Your task to perform on an android device: open wifi settings Image 0: 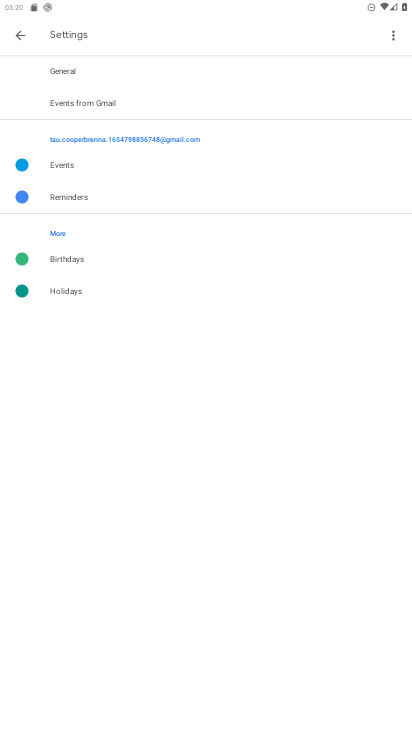
Step 0: press home button
Your task to perform on an android device: open wifi settings Image 1: 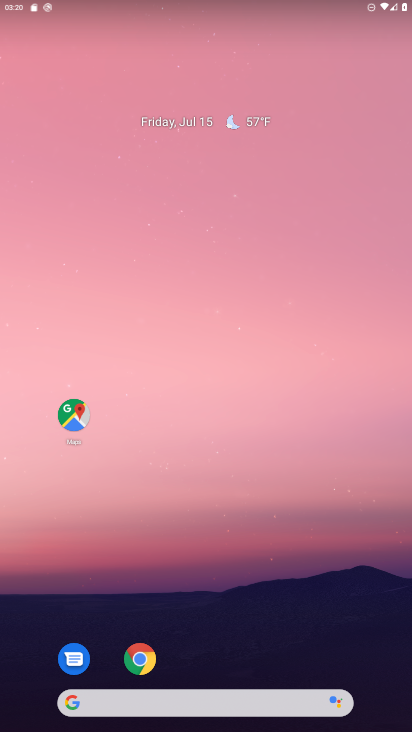
Step 1: drag from (239, 501) to (296, 52)
Your task to perform on an android device: open wifi settings Image 2: 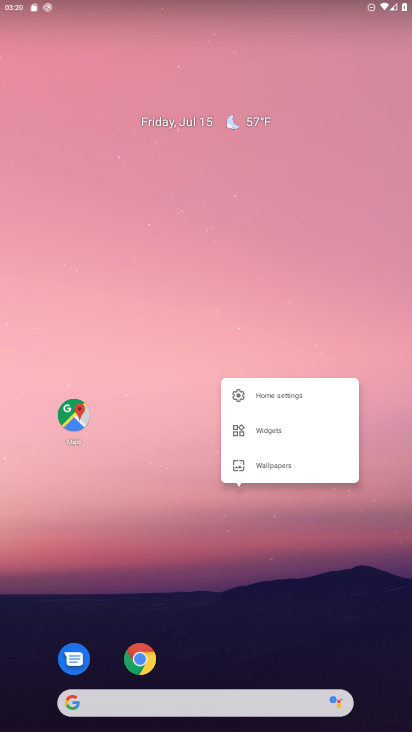
Step 2: click (259, 601)
Your task to perform on an android device: open wifi settings Image 3: 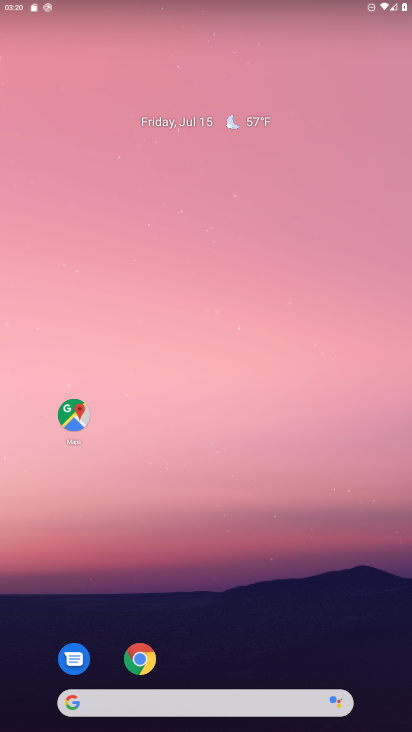
Step 3: drag from (232, 668) to (242, 0)
Your task to perform on an android device: open wifi settings Image 4: 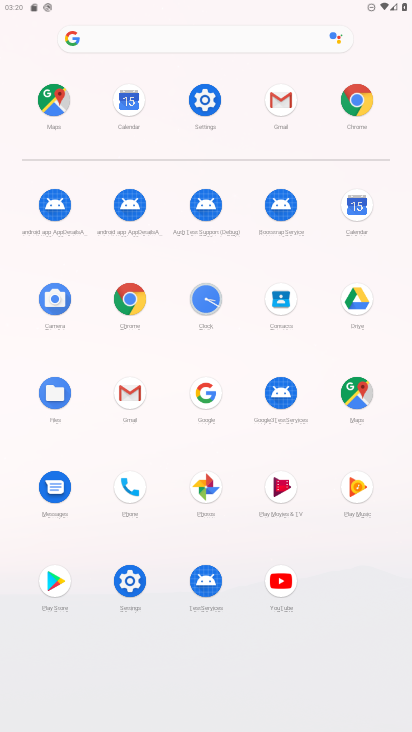
Step 4: click (134, 582)
Your task to perform on an android device: open wifi settings Image 5: 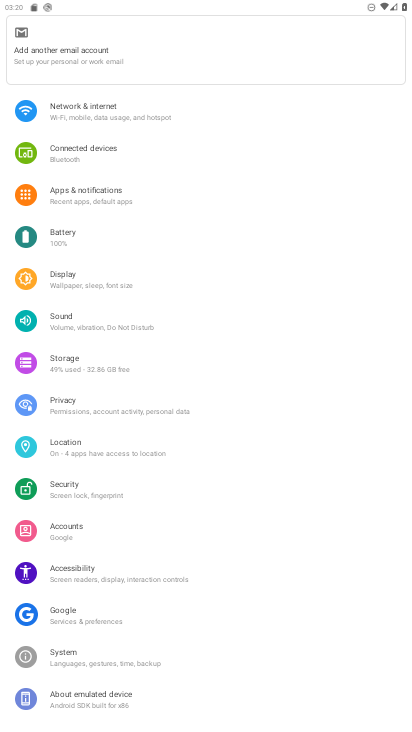
Step 5: click (111, 117)
Your task to perform on an android device: open wifi settings Image 6: 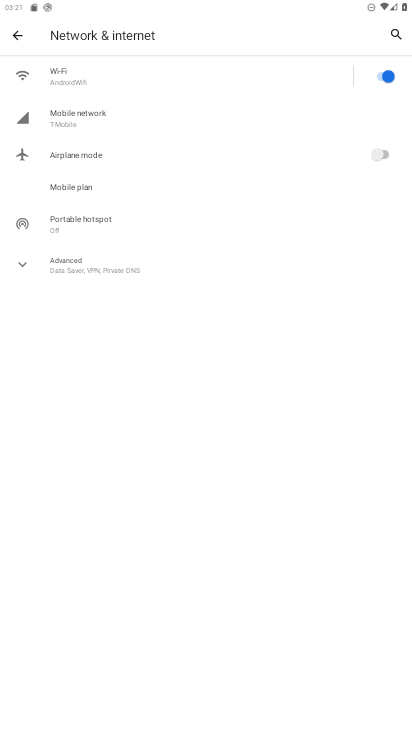
Step 6: click (86, 75)
Your task to perform on an android device: open wifi settings Image 7: 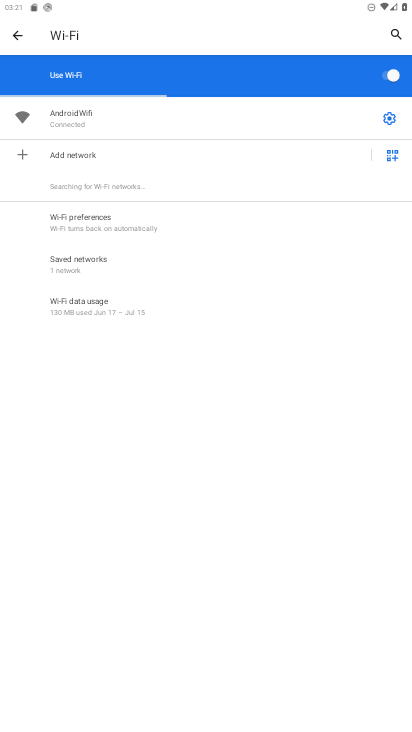
Step 7: task complete